Your task to perform on an android device: turn on notifications settings in the gmail app Image 0: 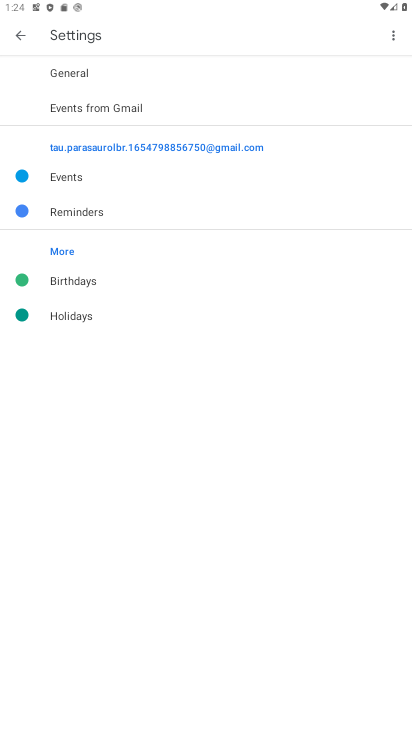
Step 0: press home button
Your task to perform on an android device: turn on notifications settings in the gmail app Image 1: 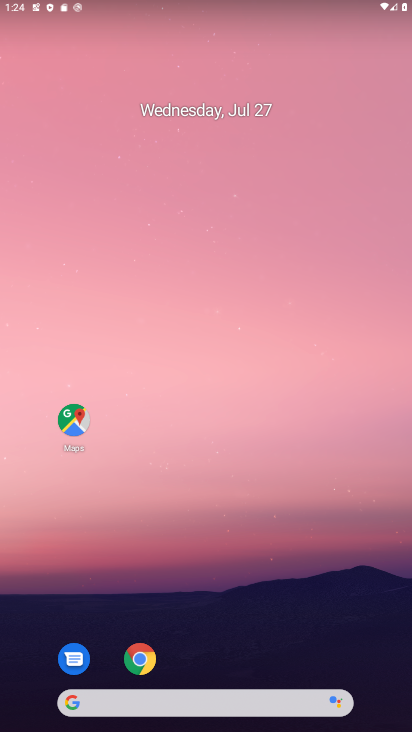
Step 1: drag from (291, 640) to (285, 92)
Your task to perform on an android device: turn on notifications settings in the gmail app Image 2: 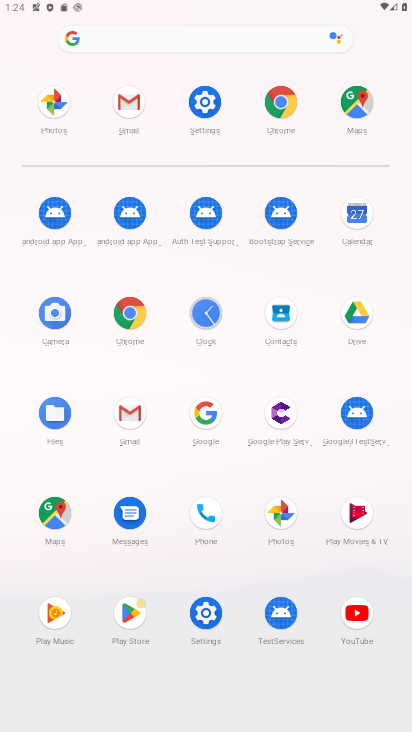
Step 2: click (124, 106)
Your task to perform on an android device: turn on notifications settings in the gmail app Image 3: 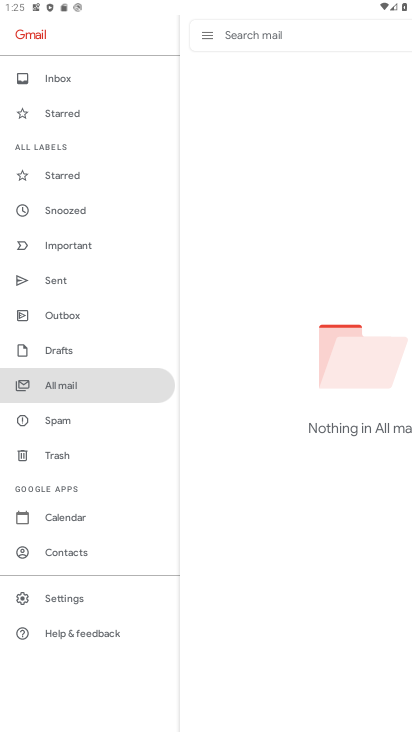
Step 3: click (82, 594)
Your task to perform on an android device: turn on notifications settings in the gmail app Image 4: 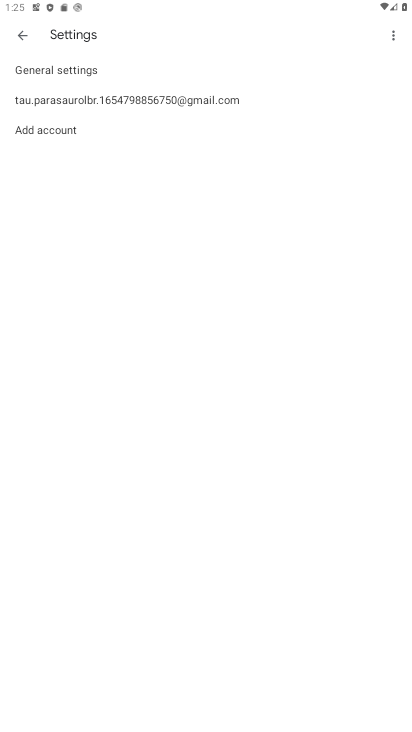
Step 4: click (190, 93)
Your task to perform on an android device: turn on notifications settings in the gmail app Image 5: 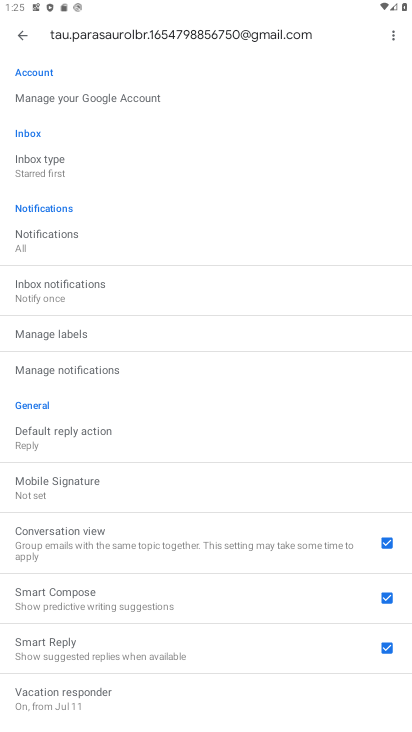
Step 5: click (89, 367)
Your task to perform on an android device: turn on notifications settings in the gmail app Image 6: 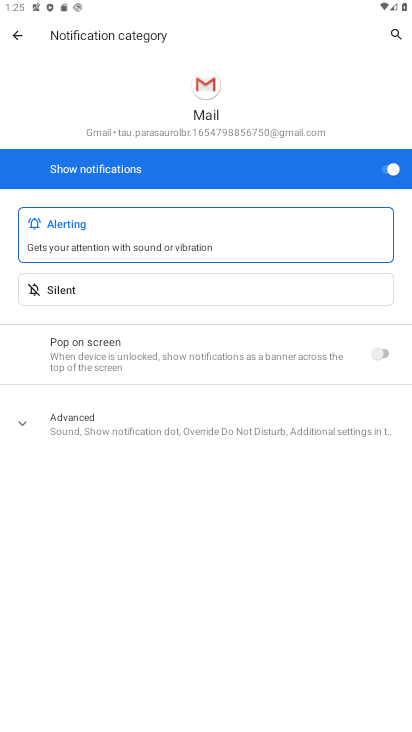
Step 6: task complete